Your task to perform on an android device: Go to Google maps Image 0: 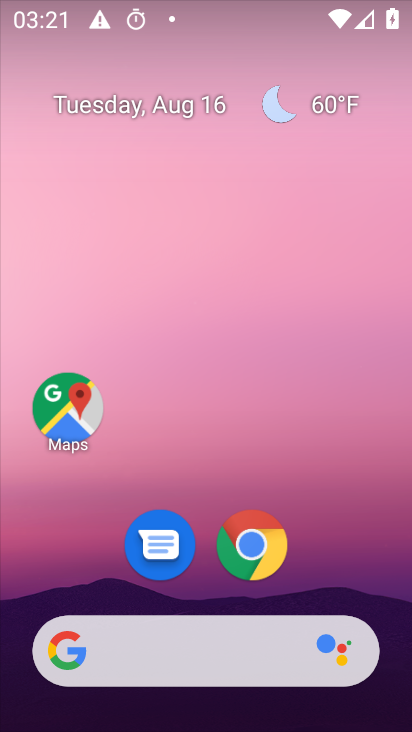
Step 0: drag from (122, 593) to (100, 266)
Your task to perform on an android device: Go to Google maps Image 1: 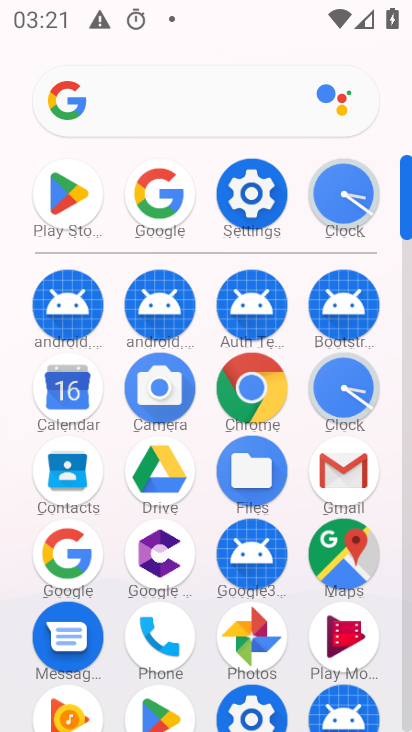
Step 1: click (343, 561)
Your task to perform on an android device: Go to Google maps Image 2: 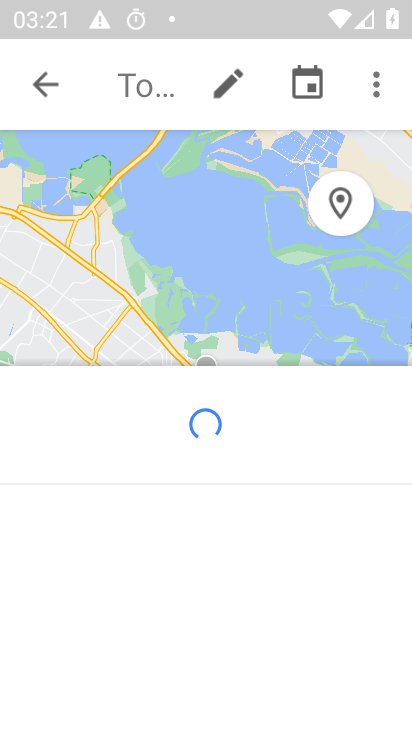
Step 2: click (30, 87)
Your task to perform on an android device: Go to Google maps Image 3: 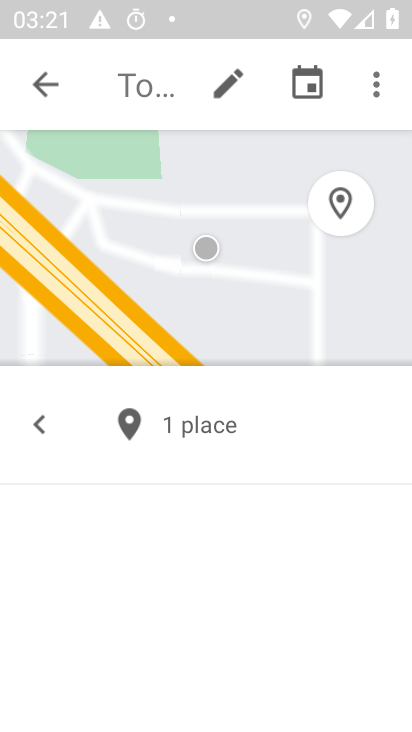
Step 3: click (46, 82)
Your task to perform on an android device: Go to Google maps Image 4: 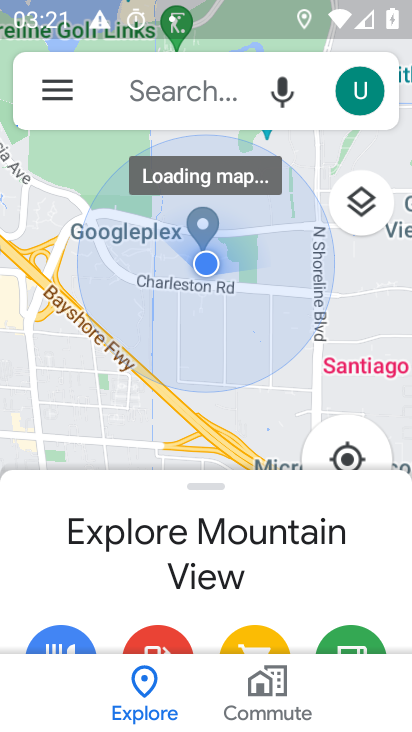
Step 4: task complete